Your task to perform on an android device: Play the last video I watched on Youtube Image 0: 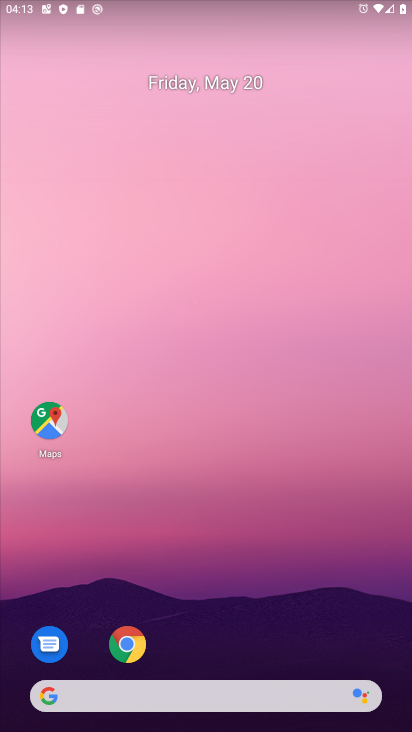
Step 0: drag from (295, 641) to (273, 45)
Your task to perform on an android device: Play the last video I watched on Youtube Image 1: 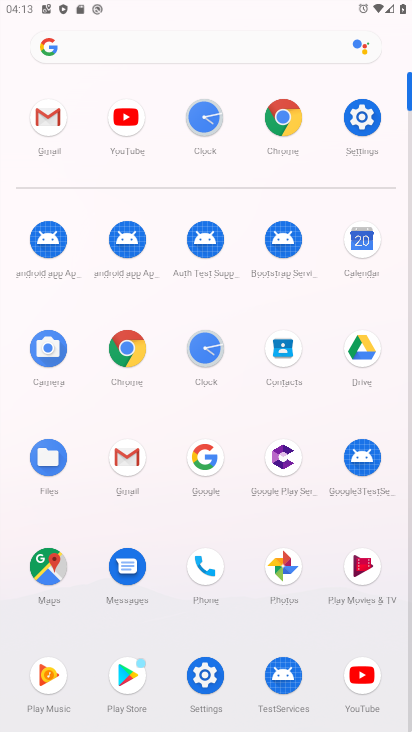
Step 1: click (123, 149)
Your task to perform on an android device: Play the last video I watched on Youtube Image 2: 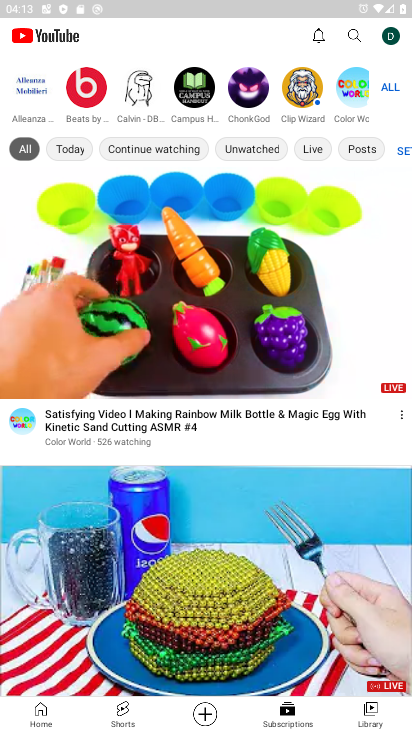
Step 2: click (351, 718)
Your task to perform on an android device: Play the last video I watched on Youtube Image 3: 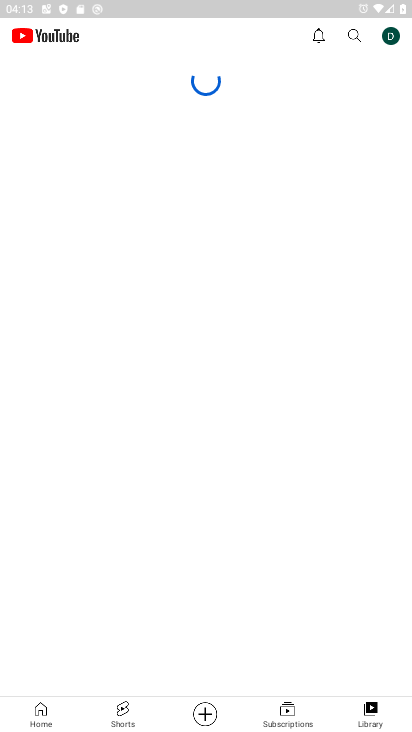
Step 3: task complete